Your task to perform on an android device: Go to Reddit.com Image 0: 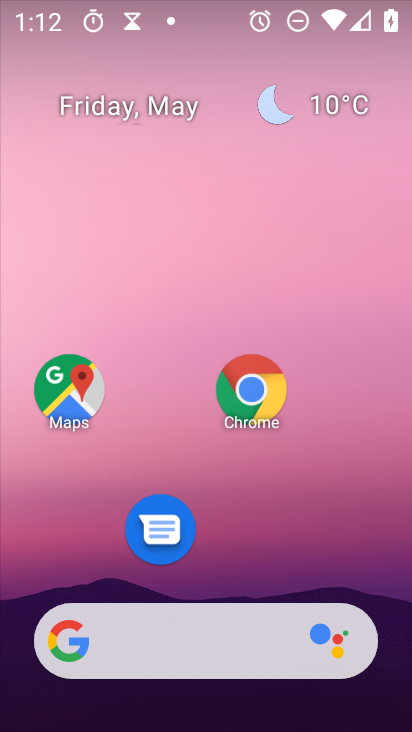
Step 0: press home button
Your task to perform on an android device: Go to Reddit.com Image 1: 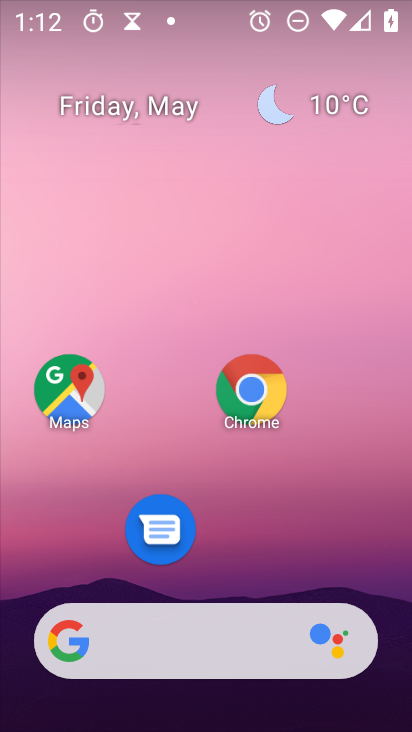
Step 1: drag from (195, 645) to (341, 92)
Your task to perform on an android device: Go to Reddit.com Image 2: 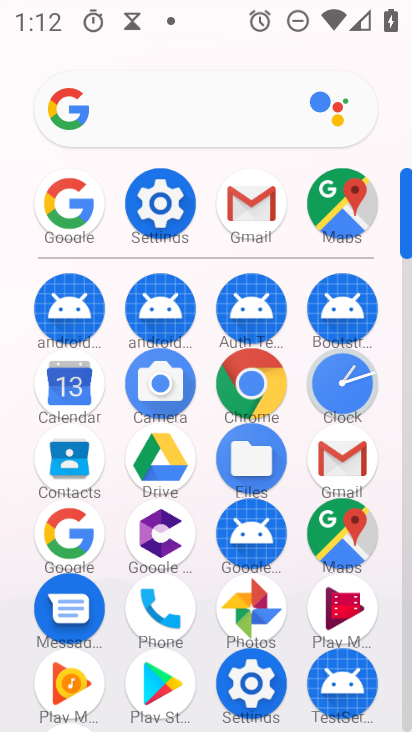
Step 2: click (247, 400)
Your task to perform on an android device: Go to Reddit.com Image 3: 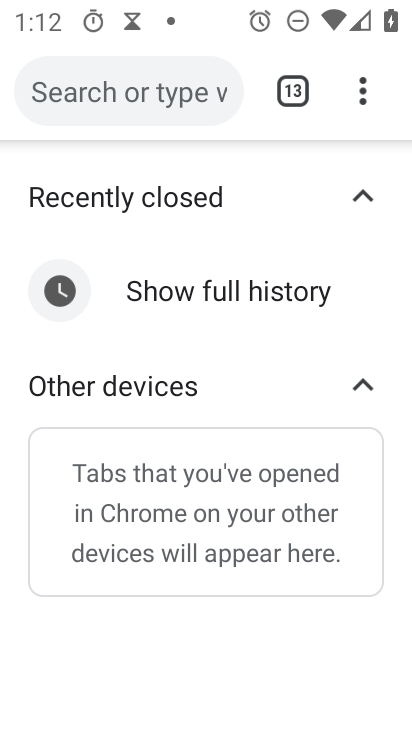
Step 3: drag from (365, 103) to (192, 180)
Your task to perform on an android device: Go to Reddit.com Image 4: 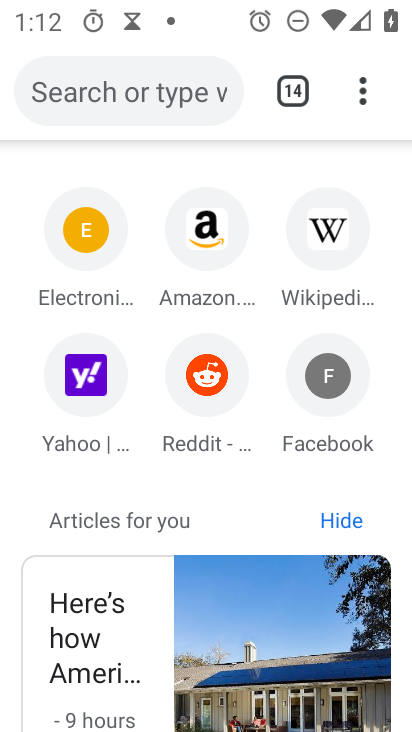
Step 4: click (133, 89)
Your task to perform on an android device: Go to Reddit.com Image 5: 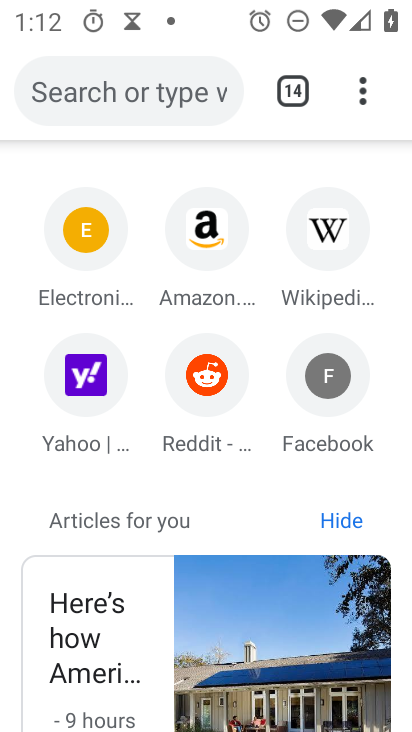
Step 5: click (163, 87)
Your task to perform on an android device: Go to Reddit.com Image 6: 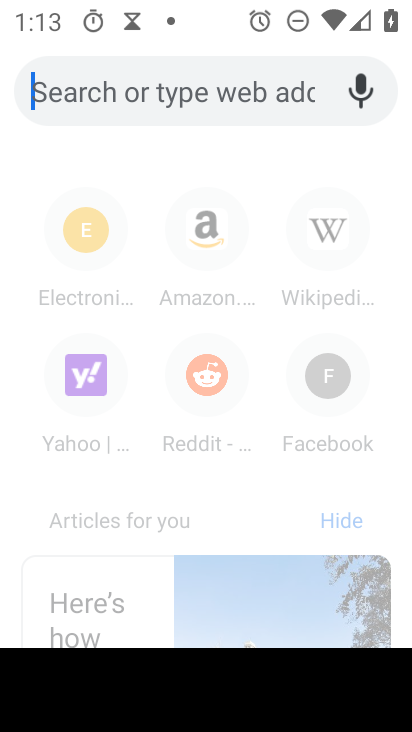
Step 6: type "reddit.com"
Your task to perform on an android device: Go to Reddit.com Image 7: 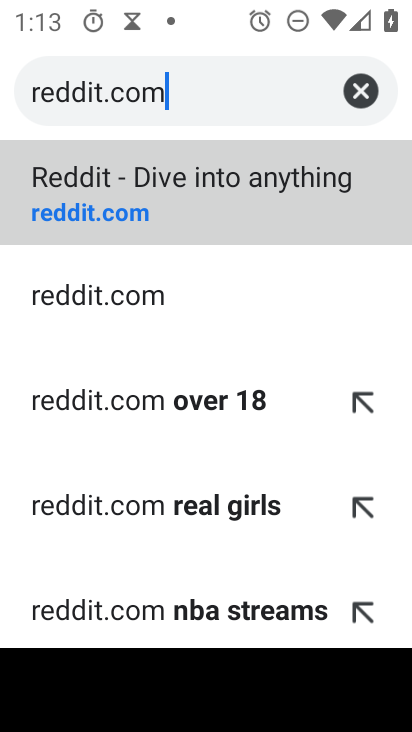
Step 7: click (181, 198)
Your task to perform on an android device: Go to Reddit.com Image 8: 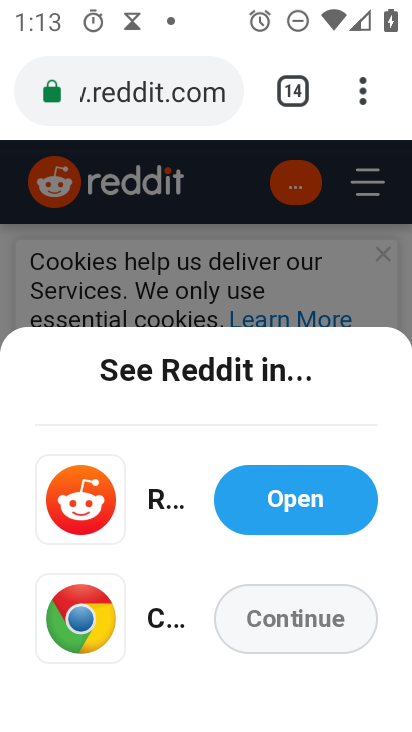
Step 8: task complete